Your task to perform on an android device: change the clock display to digital Image 0: 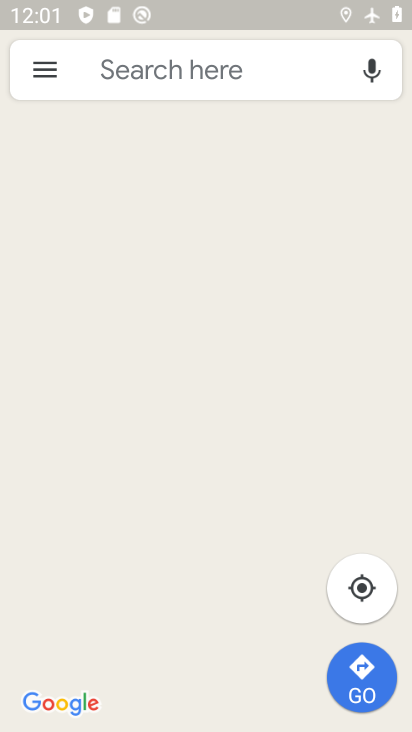
Step 0: press home button
Your task to perform on an android device: change the clock display to digital Image 1: 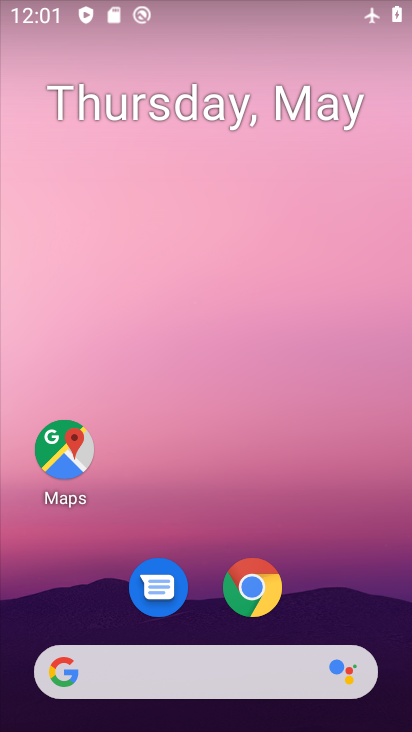
Step 1: drag from (263, 621) to (354, 2)
Your task to perform on an android device: change the clock display to digital Image 2: 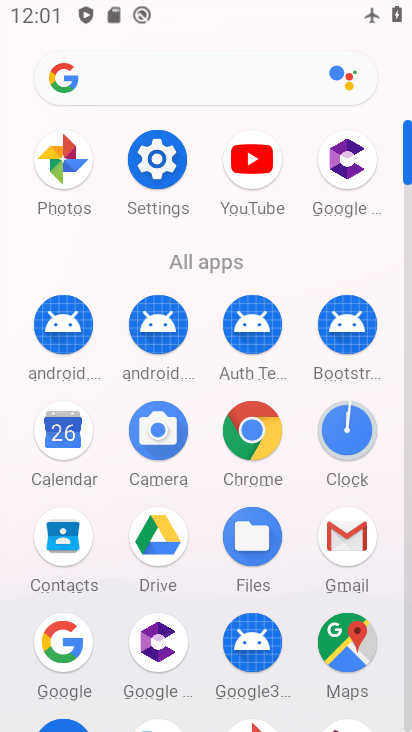
Step 2: click (339, 424)
Your task to perform on an android device: change the clock display to digital Image 3: 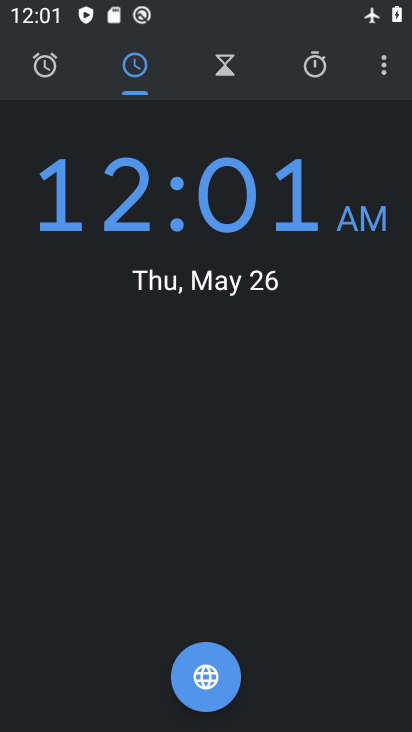
Step 3: click (382, 64)
Your task to perform on an android device: change the clock display to digital Image 4: 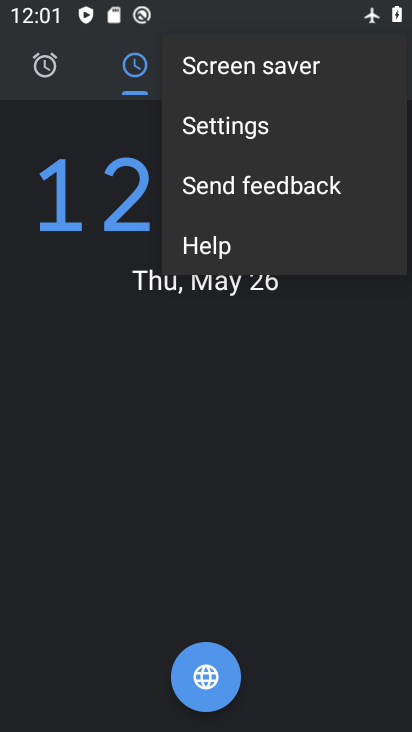
Step 4: click (240, 130)
Your task to perform on an android device: change the clock display to digital Image 5: 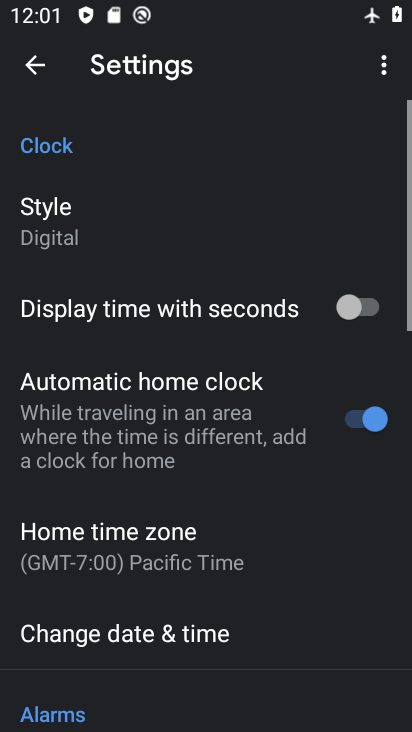
Step 5: click (166, 210)
Your task to perform on an android device: change the clock display to digital Image 6: 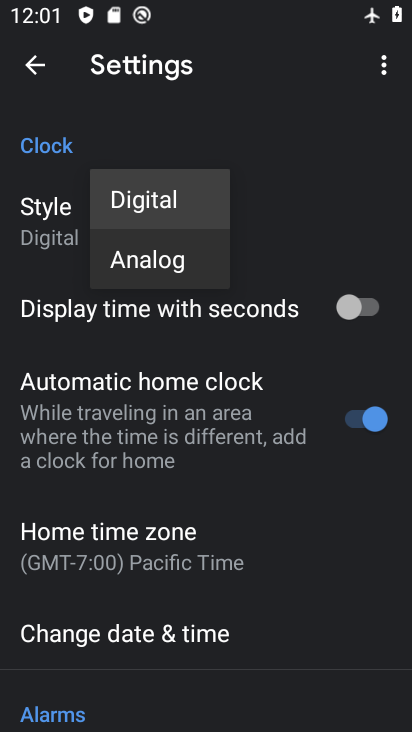
Step 6: task complete